Your task to perform on an android device: Show me the alarms in the clock app Image 0: 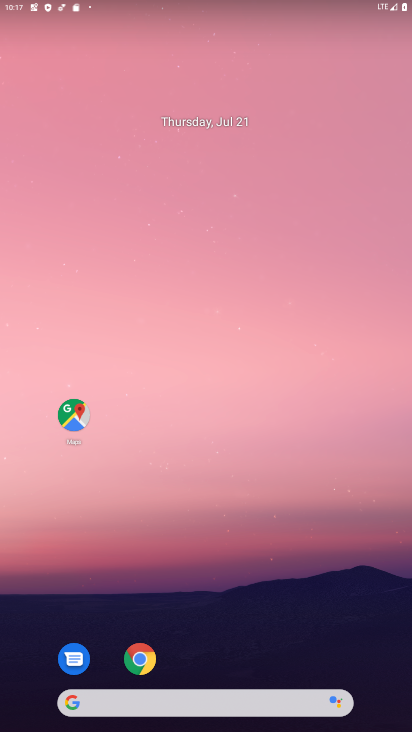
Step 0: drag from (255, 575) to (73, 4)
Your task to perform on an android device: Show me the alarms in the clock app Image 1: 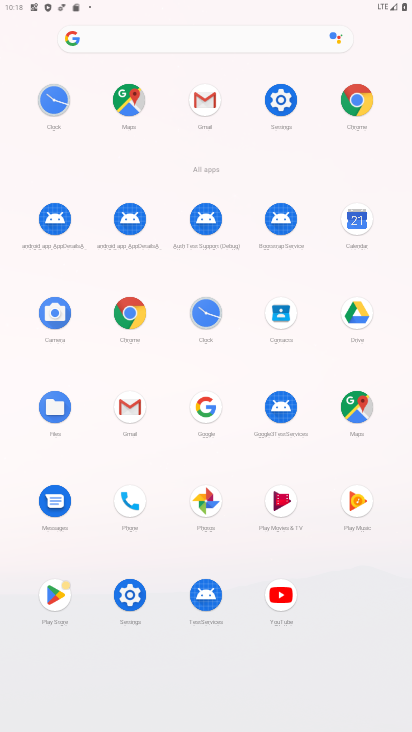
Step 1: click (206, 315)
Your task to perform on an android device: Show me the alarms in the clock app Image 2: 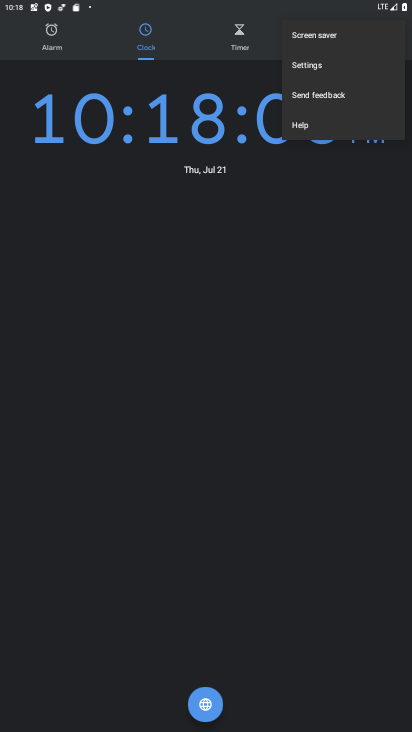
Step 2: click (160, 331)
Your task to perform on an android device: Show me the alarms in the clock app Image 3: 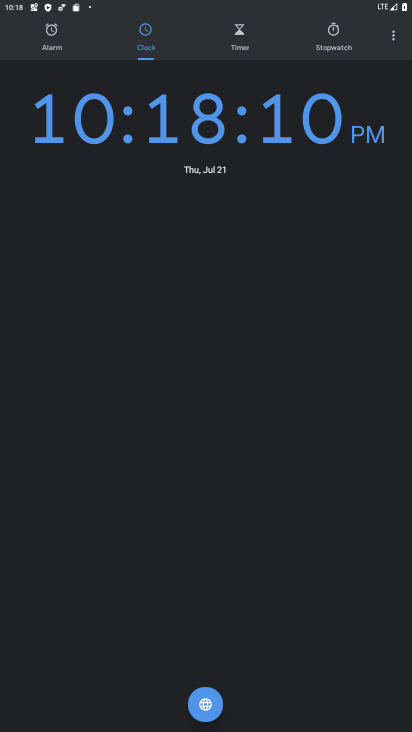
Step 3: click (43, 41)
Your task to perform on an android device: Show me the alarms in the clock app Image 4: 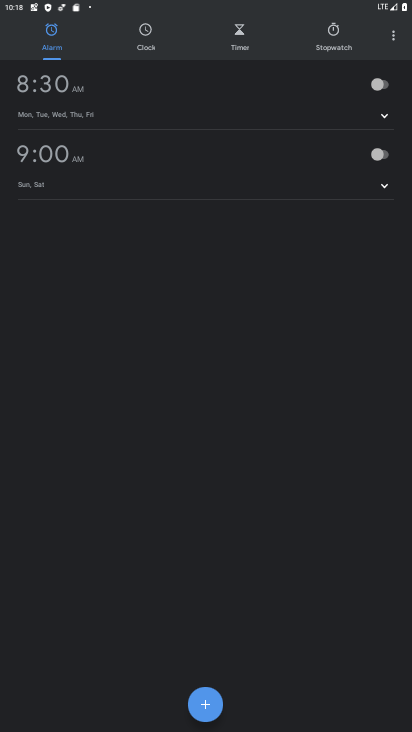
Step 4: task complete